Your task to perform on an android device: add a contact in the contacts app Image 0: 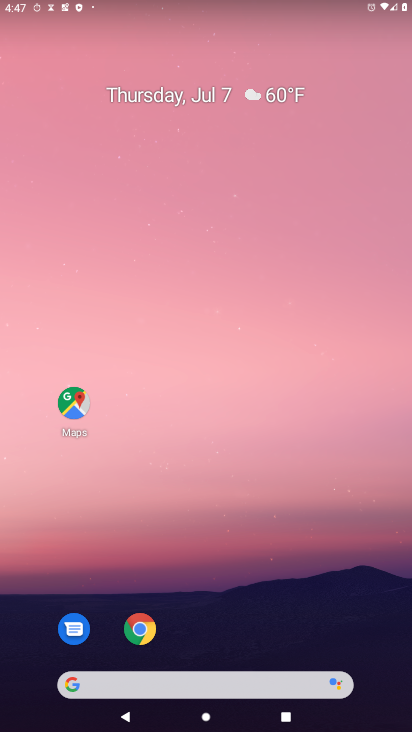
Step 0: drag from (205, 548) to (210, 20)
Your task to perform on an android device: add a contact in the contacts app Image 1: 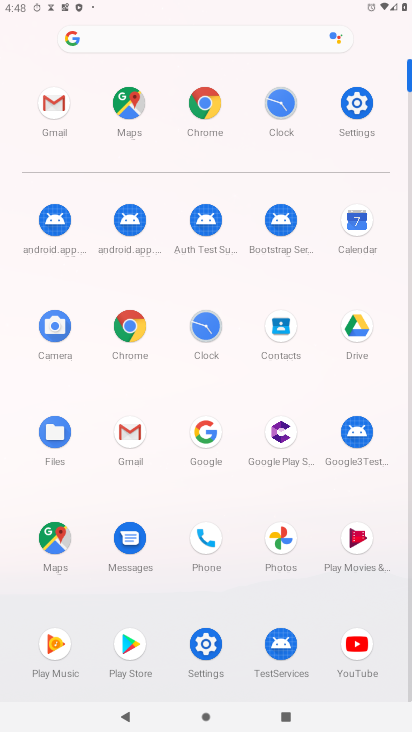
Step 1: click (274, 349)
Your task to perform on an android device: add a contact in the contacts app Image 2: 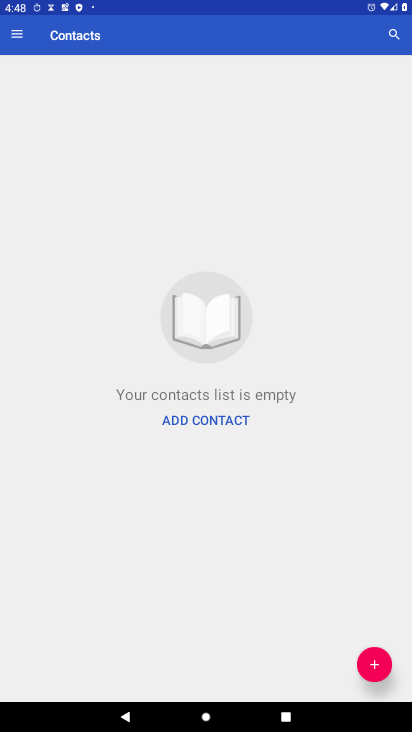
Step 2: click (379, 667)
Your task to perform on an android device: add a contact in the contacts app Image 3: 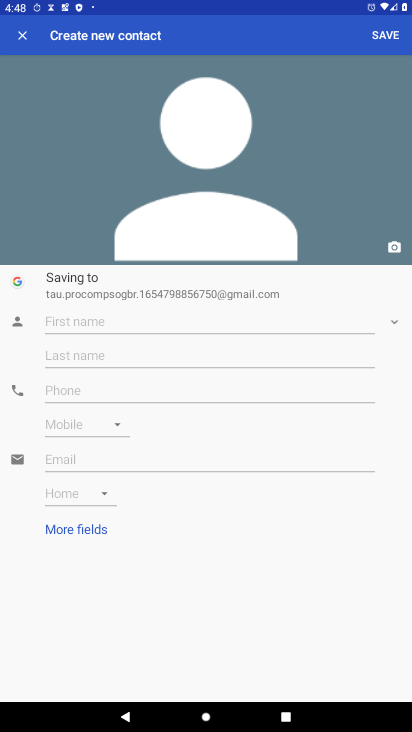
Step 3: click (234, 320)
Your task to perform on an android device: add a contact in the contacts app Image 4: 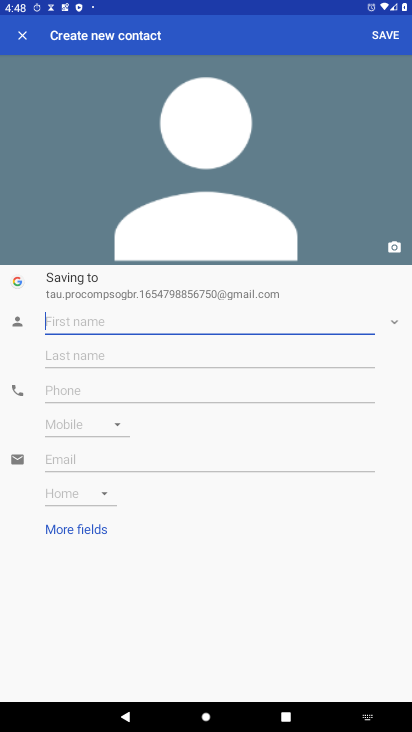
Step 4: type "pritam"
Your task to perform on an android device: add a contact in the contacts app Image 5: 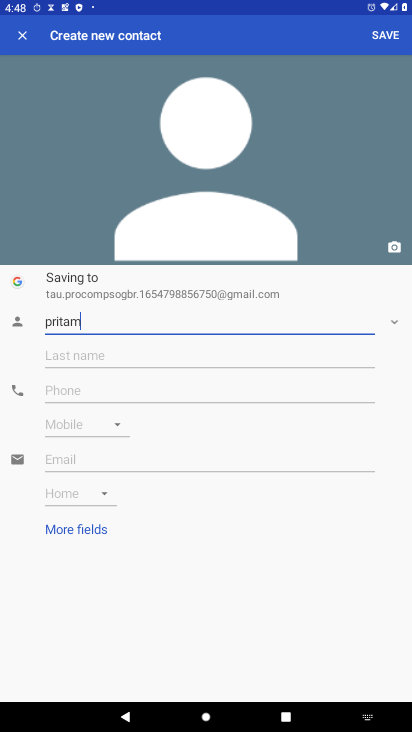
Step 5: click (140, 346)
Your task to perform on an android device: add a contact in the contacts app Image 6: 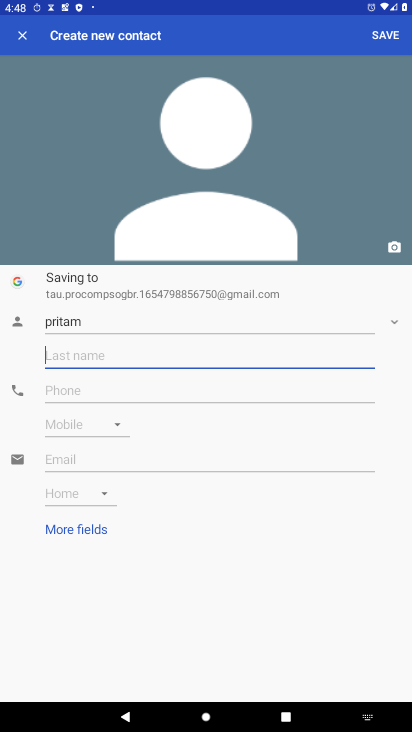
Step 6: type "9999818075"
Your task to perform on an android device: add a contact in the contacts app Image 7: 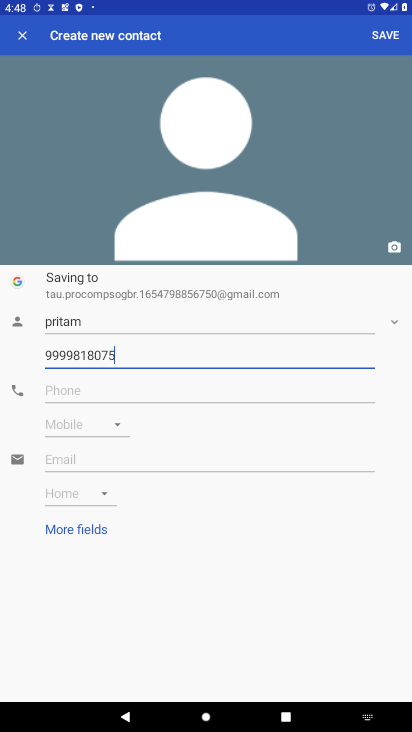
Step 7: click (388, 33)
Your task to perform on an android device: add a contact in the contacts app Image 8: 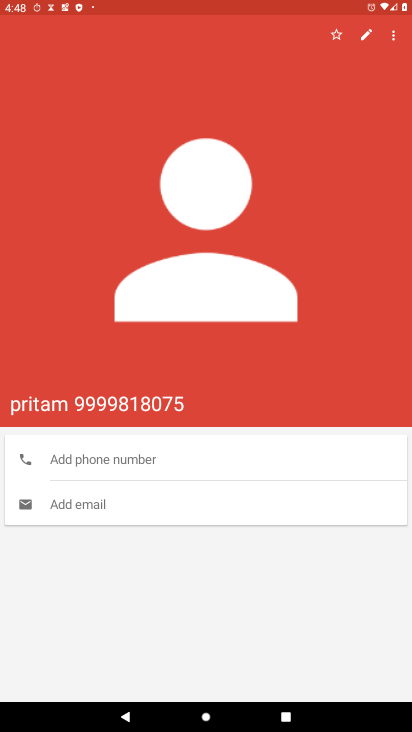
Step 8: task complete